Your task to perform on an android device: Go to Android settings Image 0: 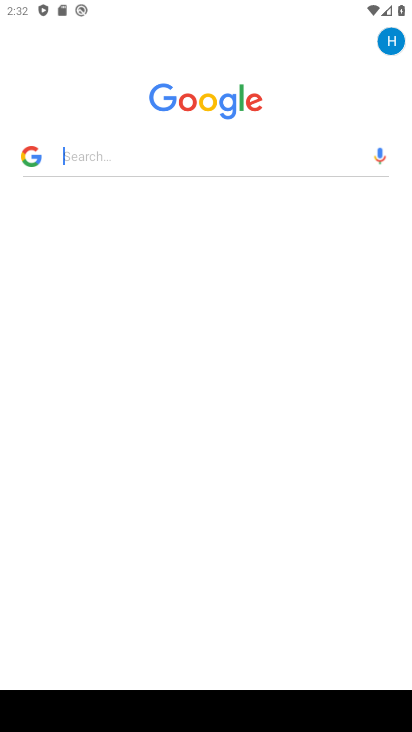
Step 0: click (221, 610)
Your task to perform on an android device: Go to Android settings Image 1: 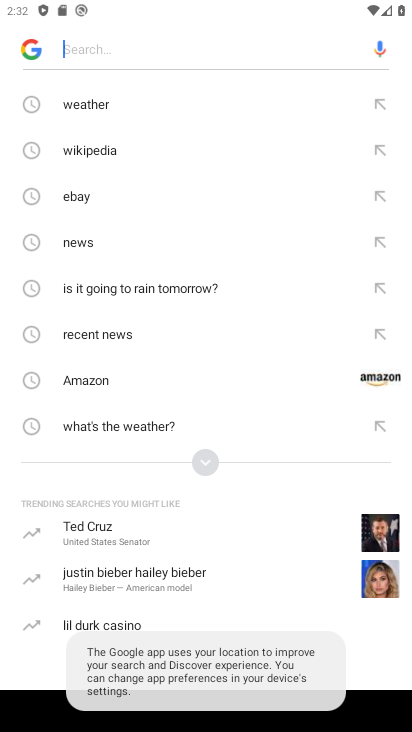
Step 1: press home button
Your task to perform on an android device: Go to Android settings Image 2: 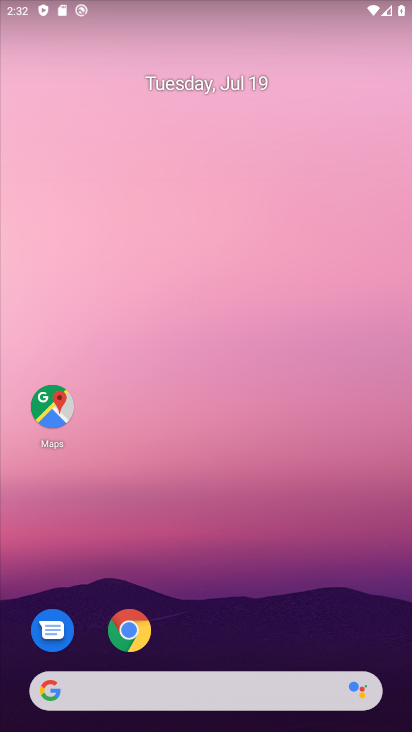
Step 2: drag from (335, 611) to (214, 44)
Your task to perform on an android device: Go to Android settings Image 3: 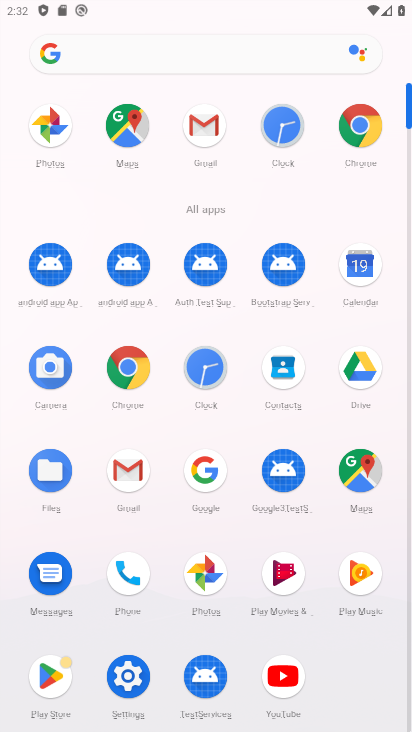
Step 3: click (120, 691)
Your task to perform on an android device: Go to Android settings Image 4: 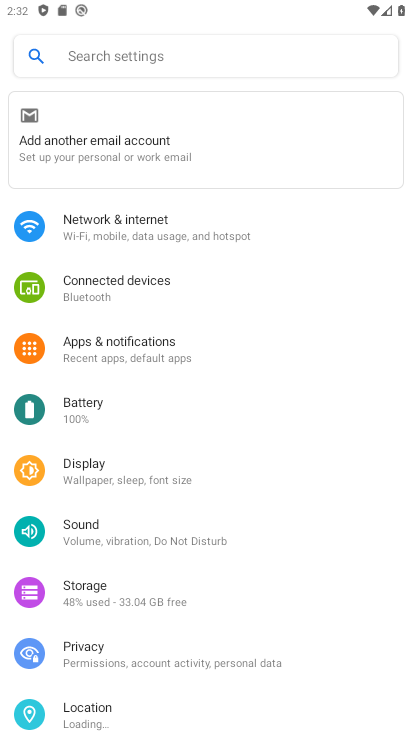
Step 4: task complete